Your task to perform on an android device: manage bookmarks in the chrome app Image 0: 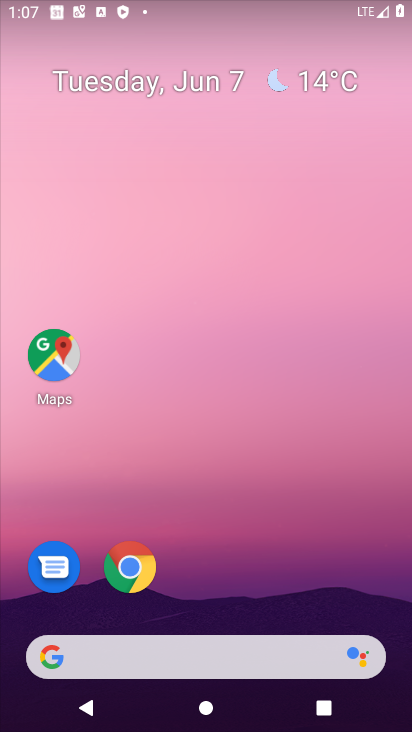
Step 0: drag from (355, 560) to (381, 11)
Your task to perform on an android device: manage bookmarks in the chrome app Image 1: 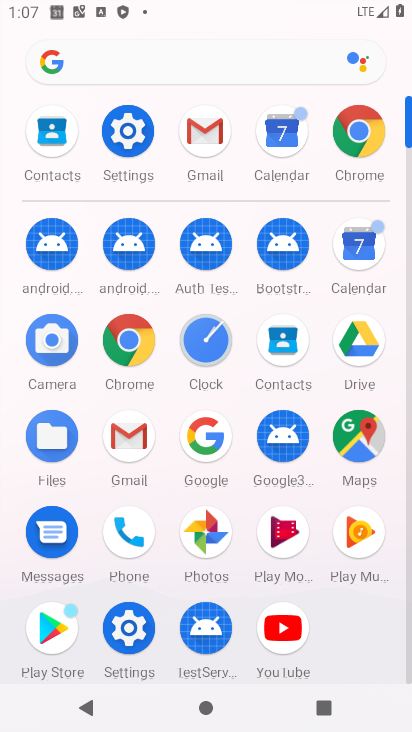
Step 1: click (143, 344)
Your task to perform on an android device: manage bookmarks in the chrome app Image 2: 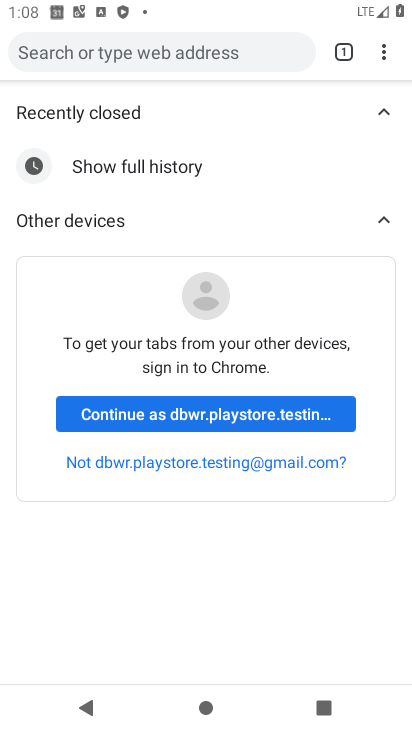
Step 2: click (387, 44)
Your task to perform on an android device: manage bookmarks in the chrome app Image 3: 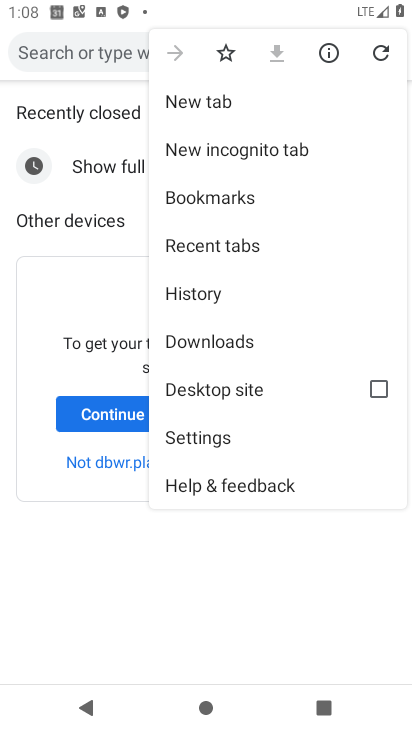
Step 3: click (254, 200)
Your task to perform on an android device: manage bookmarks in the chrome app Image 4: 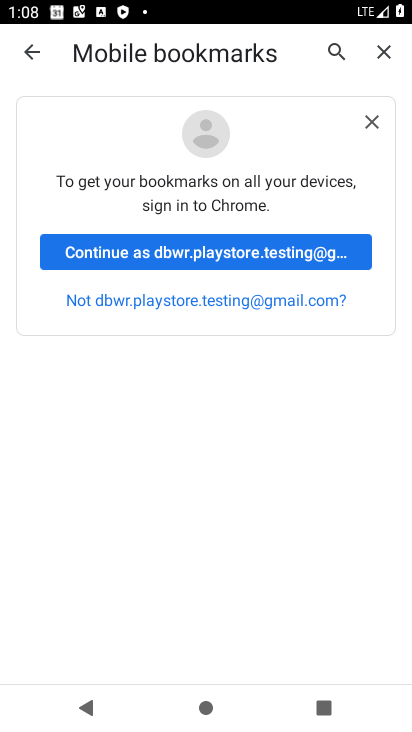
Step 4: task complete